Your task to perform on an android device: Open privacy settings Image 0: 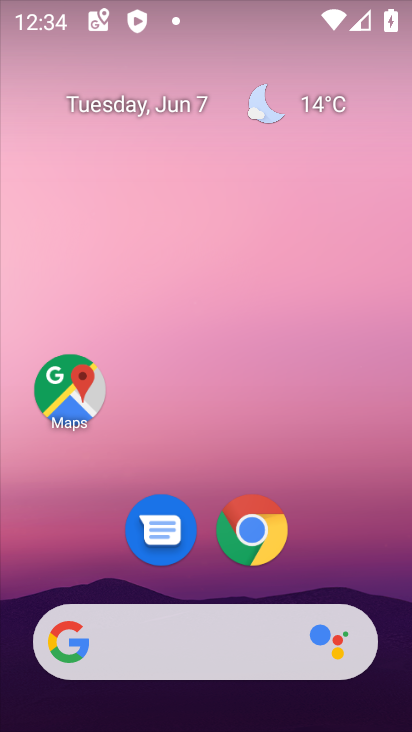
Step 0: drag from (298, 571) to (328, 253)
Your task to perform on an android device: Open privacy settings Image 1: 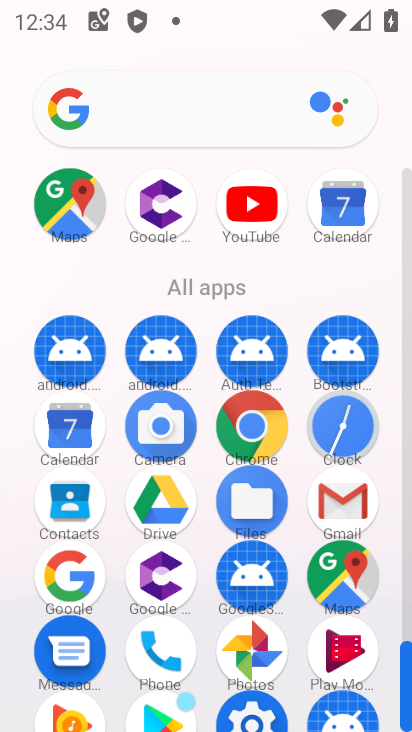
Step 1: drag from (293, 633) to (297, 372)
Your task to perform on an android device: Open privacy settings Image 2: 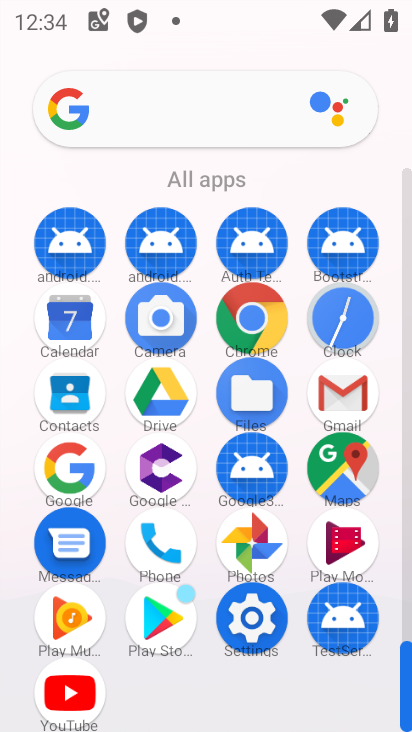
Step 2: click (250, 611)
Your task to perform on an android device: Open privacy settings Image 3: 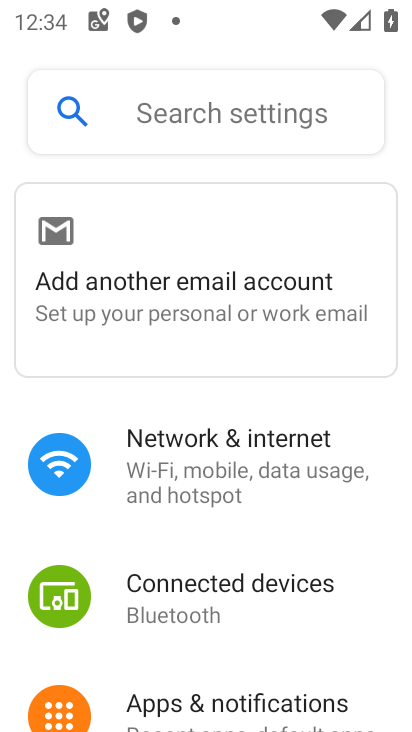
Step 3: drag from (239, 633) to (253, 267)
Your task to perform on an android device: Open privacy settings Image 4: 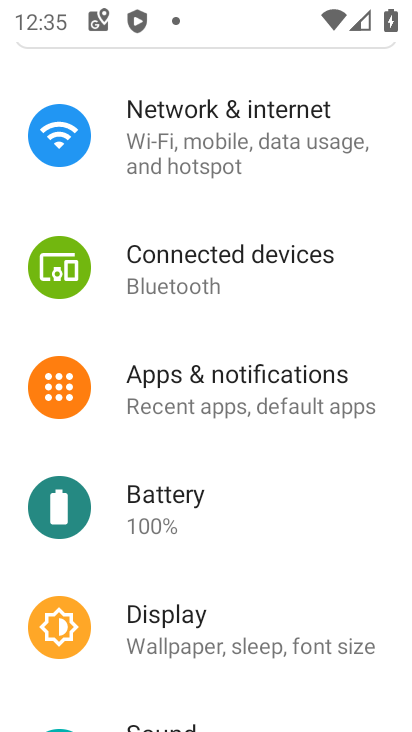
Step 4: drag from (211, 633) to (241, 255)
Your task to perform on an android device: Open privacy settings Image 5: 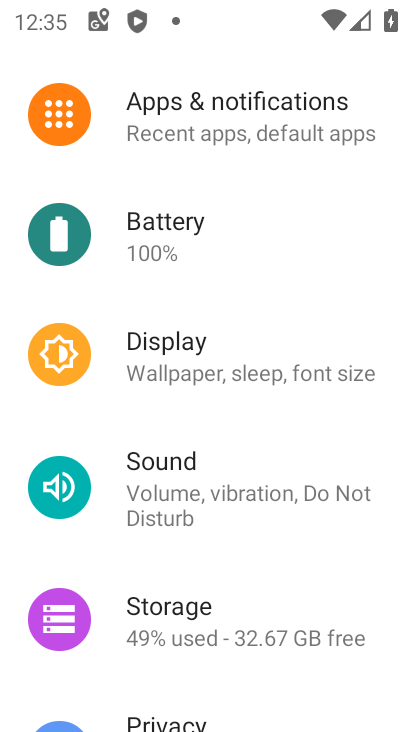
Step 5: drag from (213, 609) to (272, 313)
Your task to perform on an android device: Open privacy settings Image 6: 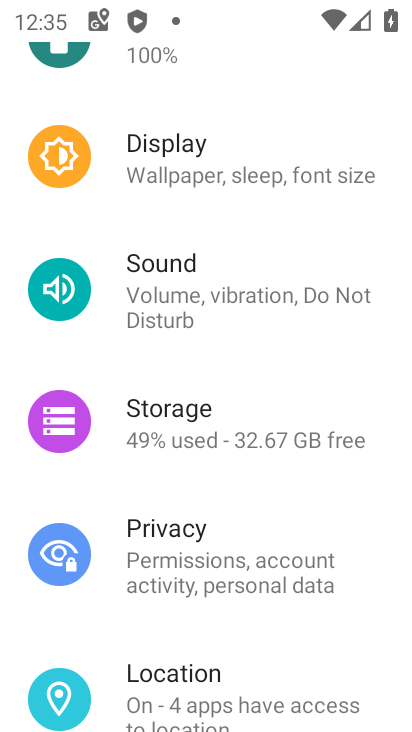
Step 6: click (215, 521)
Your task to perform on an android device: Open privacy settings Image 7: 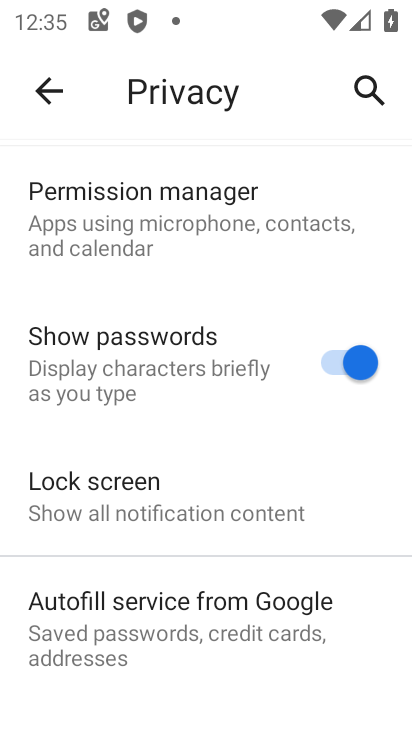
Step 7: task complete